Your task to perform on an android device: check the backup settings in the google photos Image 0: 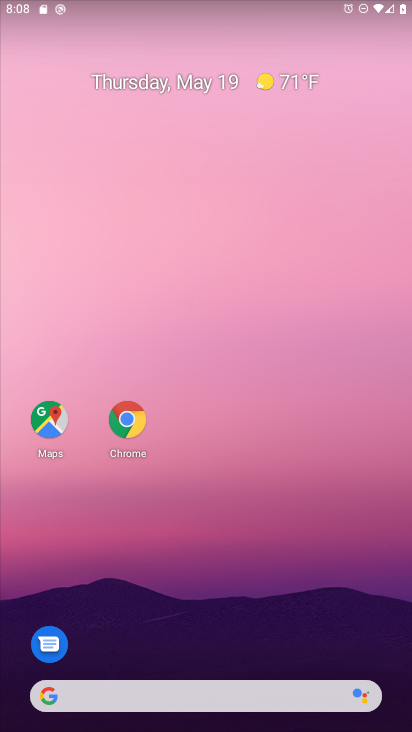
Step 0: drag from (199, 674) to (199, 235)
Your task to perform on an android device: check the backup settings in the google photos Image 1: 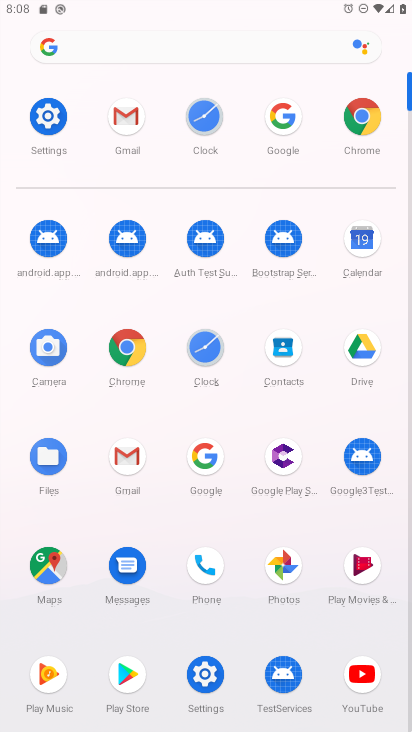
Step 1: click (283, 571)
Your task to perform on an android device: check the backup settings in the google photos Image 2: 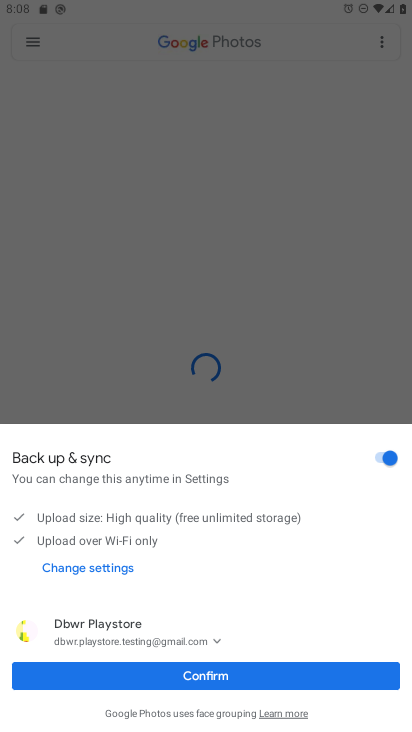
Step 2: click (223, 682)
Your task to perform on an android device: check the backup settings in the google photos Image 3: 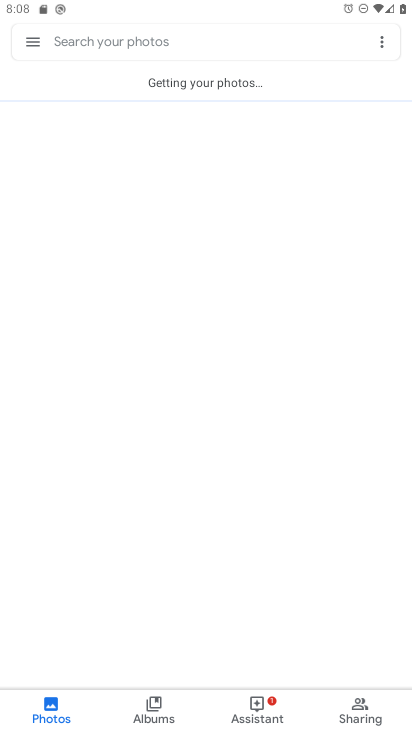
Step 3: click (44, 42)
Your task to perform on an android device: check the backup settings in the google photos Image 4: 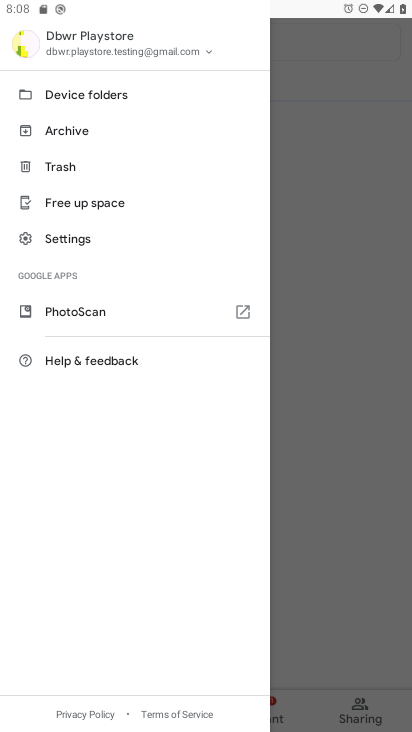
Step 4: click (70, 238)
Your task to perform on an android device: check the backup settings in the google photos Image 5: 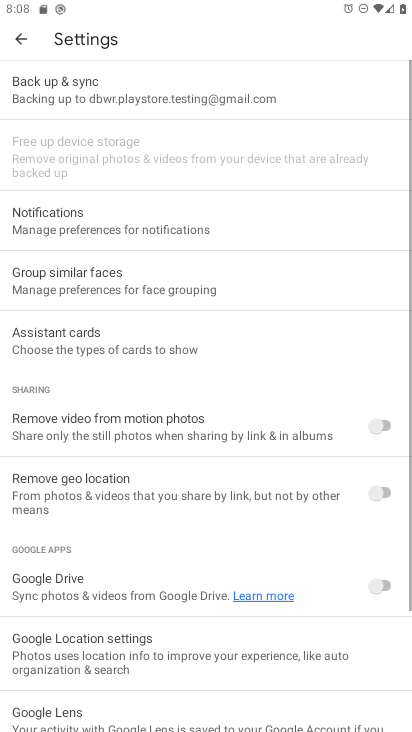
Step 5: click (107, 85)
Your task to perform on an android device: check the backup settings in the google photos Image 6: 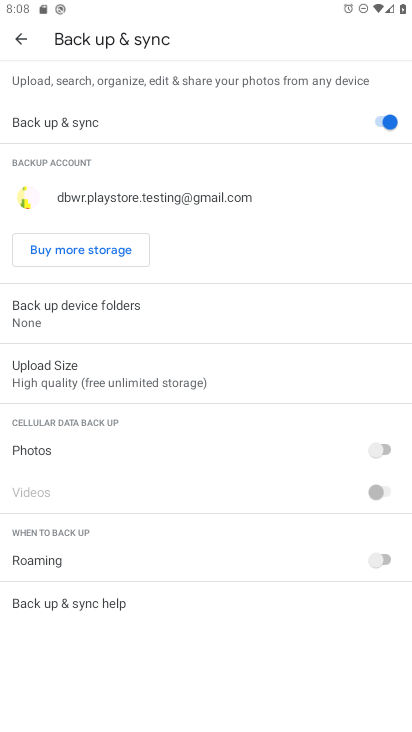
Step 6: task complete